Your task to perform on an android device: turn on notifications settings in the gmail app Image 0: 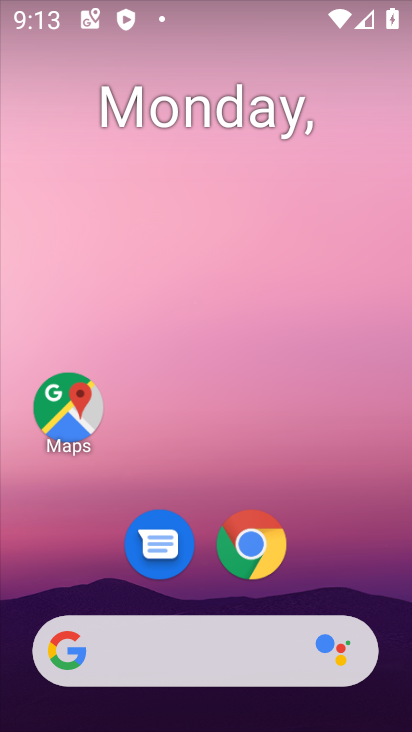
Step 0: drag from (311, 525) to (337, 15)
Your task to perform on an android device: turn on notifications settings in the gmail app Image 1: 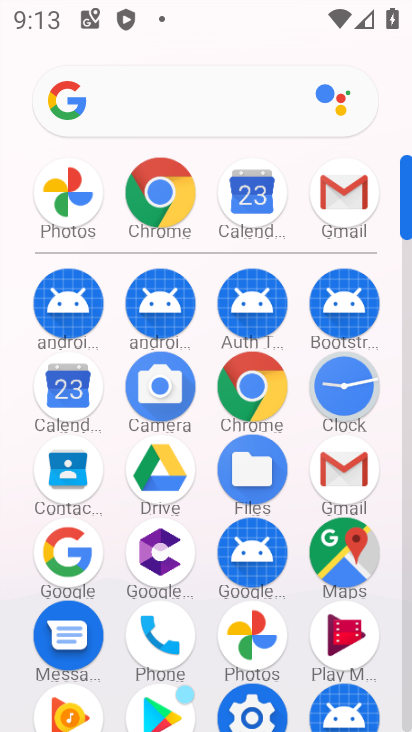
Step 1: click (342, 192)
Your task to perform on an android device: turn on notifications settings in the gmail app Image 2: 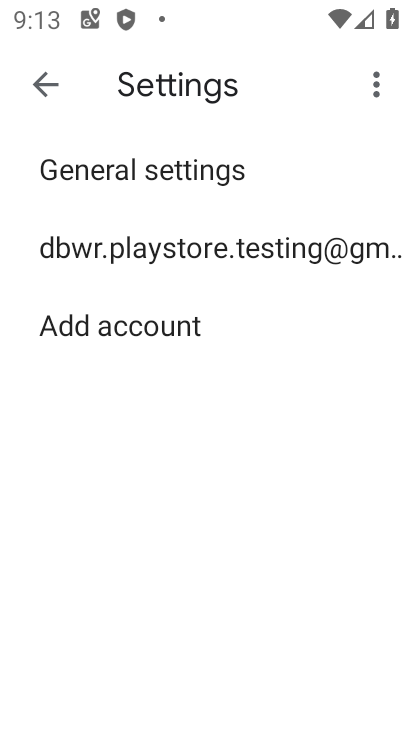
Step 2: click (125, 166)
Your task to perform on an android device: turn on notifications settings in the gmail app Image 3: 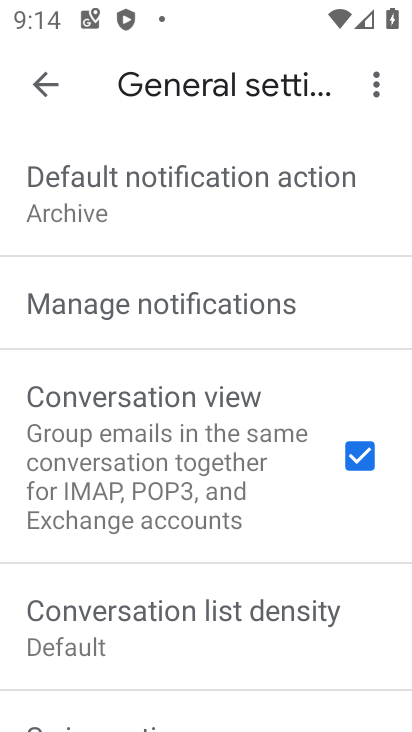
Step 3: click (161, 296)
Your task to perform on an android device: turn on notifications settings in the gmail app Image 4: 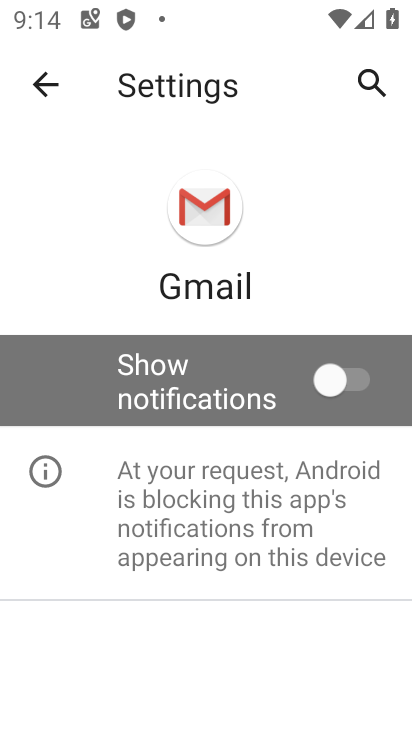
Step 4: click (328, 387)
Your task to perform on an android device: turn on notifications settings in the gmail app Image 5: 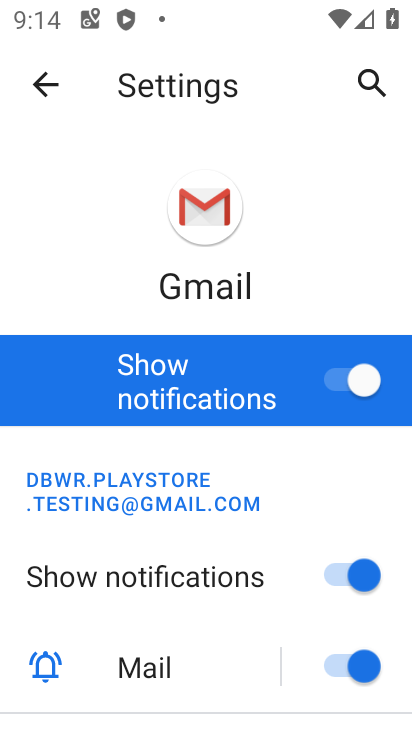
Step 5: task complete